Your task to perform on an android device: Is it going to rain tomorrow? Image 0: 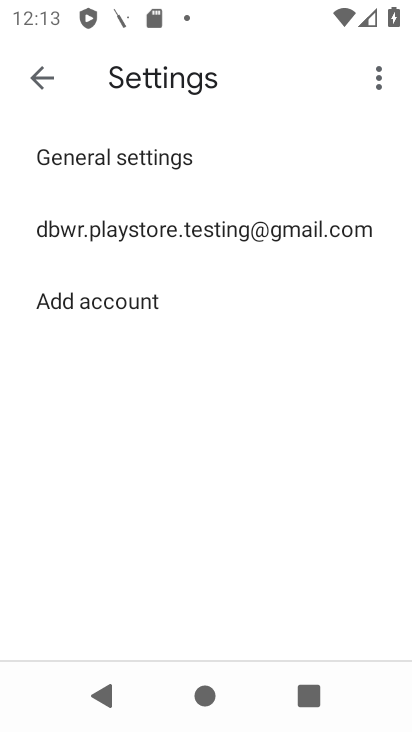
Step 0: press home button
Your task to perform on an android device: Is it going to rain tomorrow? Image 1: 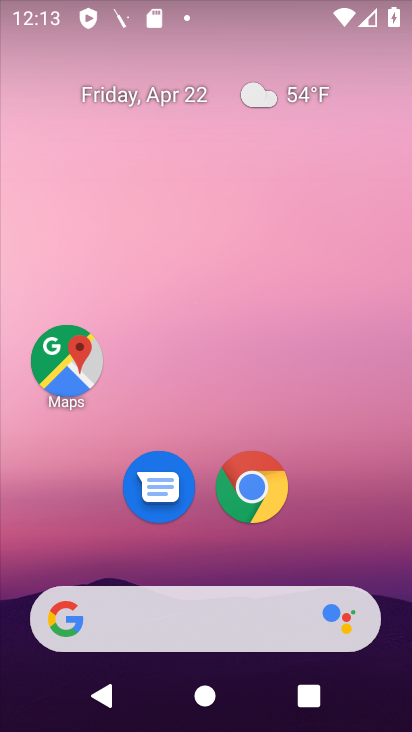
Step 1: drag from (226, 449) to (292, 185)
Your task to perform on an android device: Is it going to rain tomorrow? Image 2: 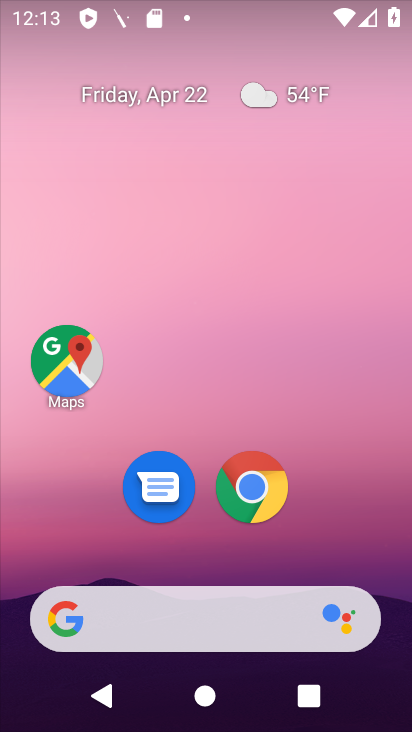
Step 2: drag from (217, 527) to (299, 143)
Your task to perform on an android device: Is it going to rain tomorrow? Image 3: 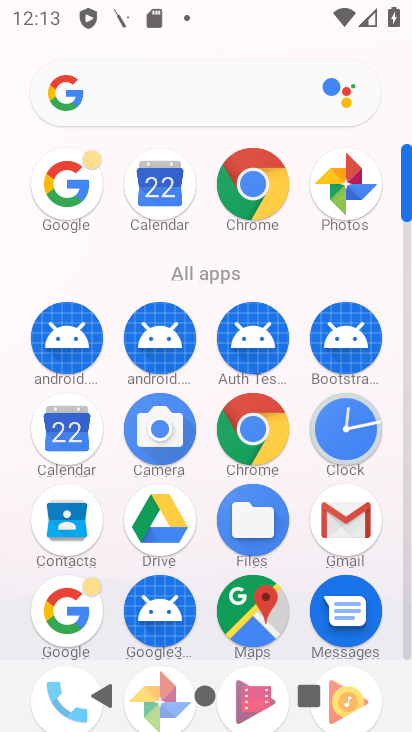
Step 3: click (81, 185)
Your task to perform on an android device: Is it going to rain tomorrow? Image 4: 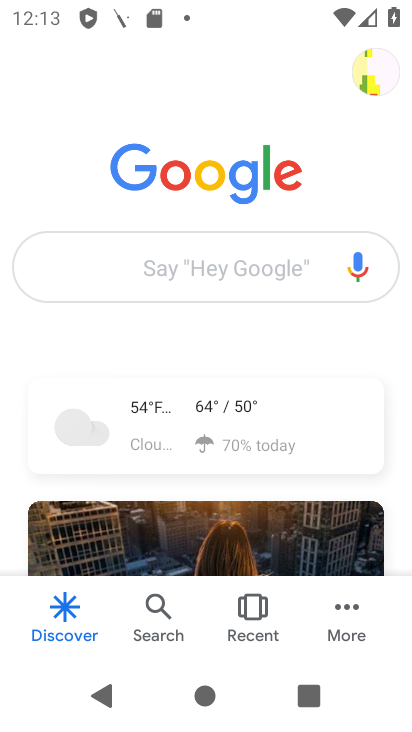
Step 4: click (178, 443)
Your task to perform on an android device: Is it going to rain tomorrow? Image 5: 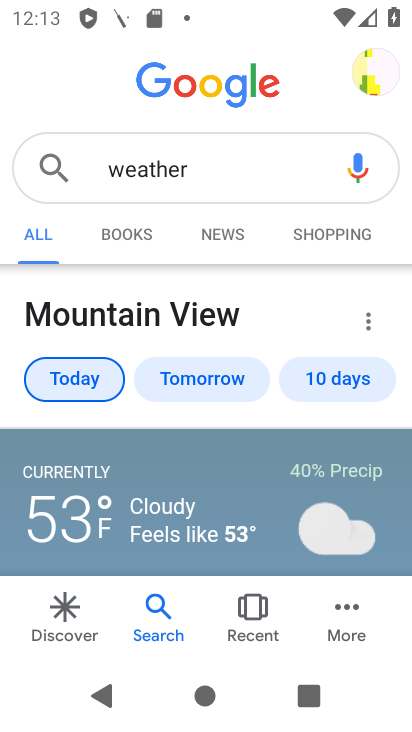
Step 5: task complete